Your task to perform on an android device: What's a good restaurant in New York? Image 0: 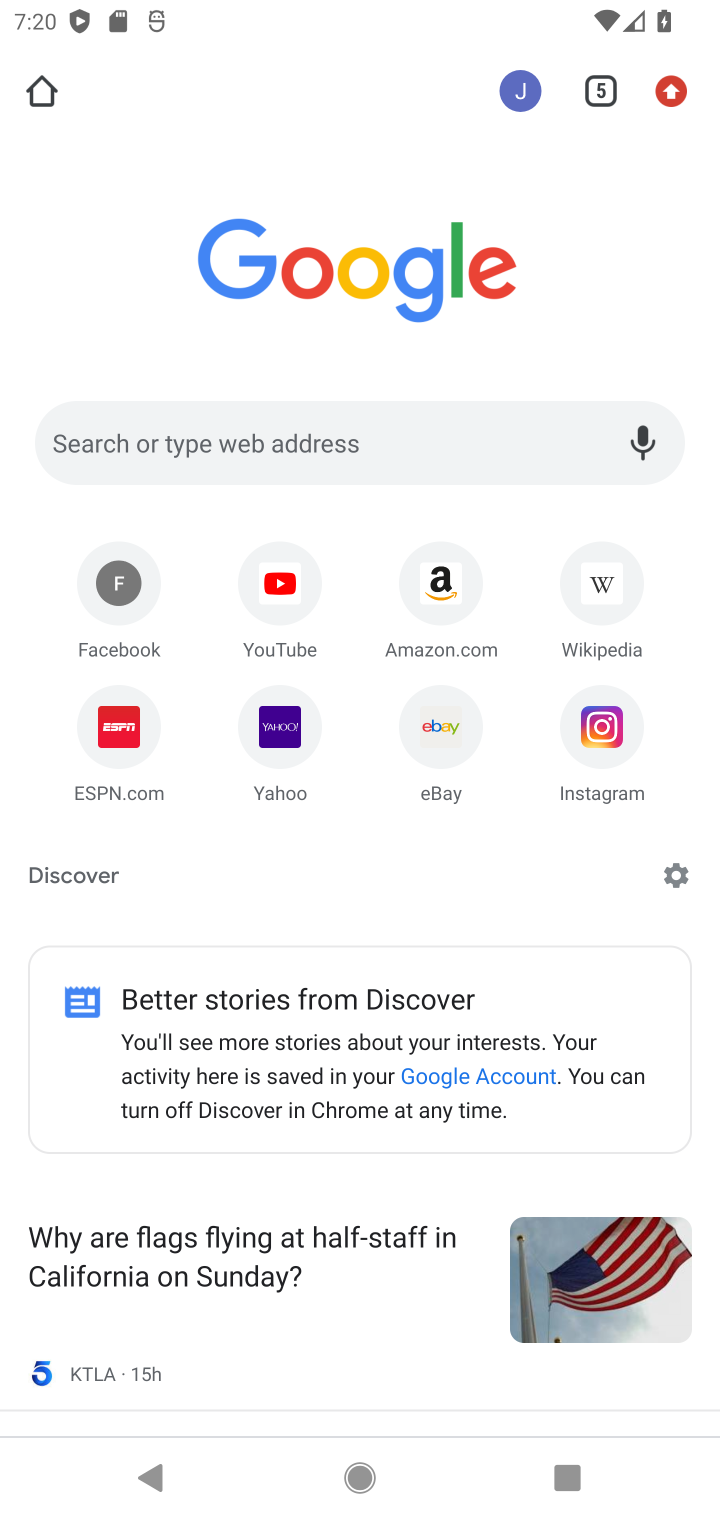
Step 0: click (155, 421)
Your task to perform on an android device: What's a good restaurant in New York? Image 1: 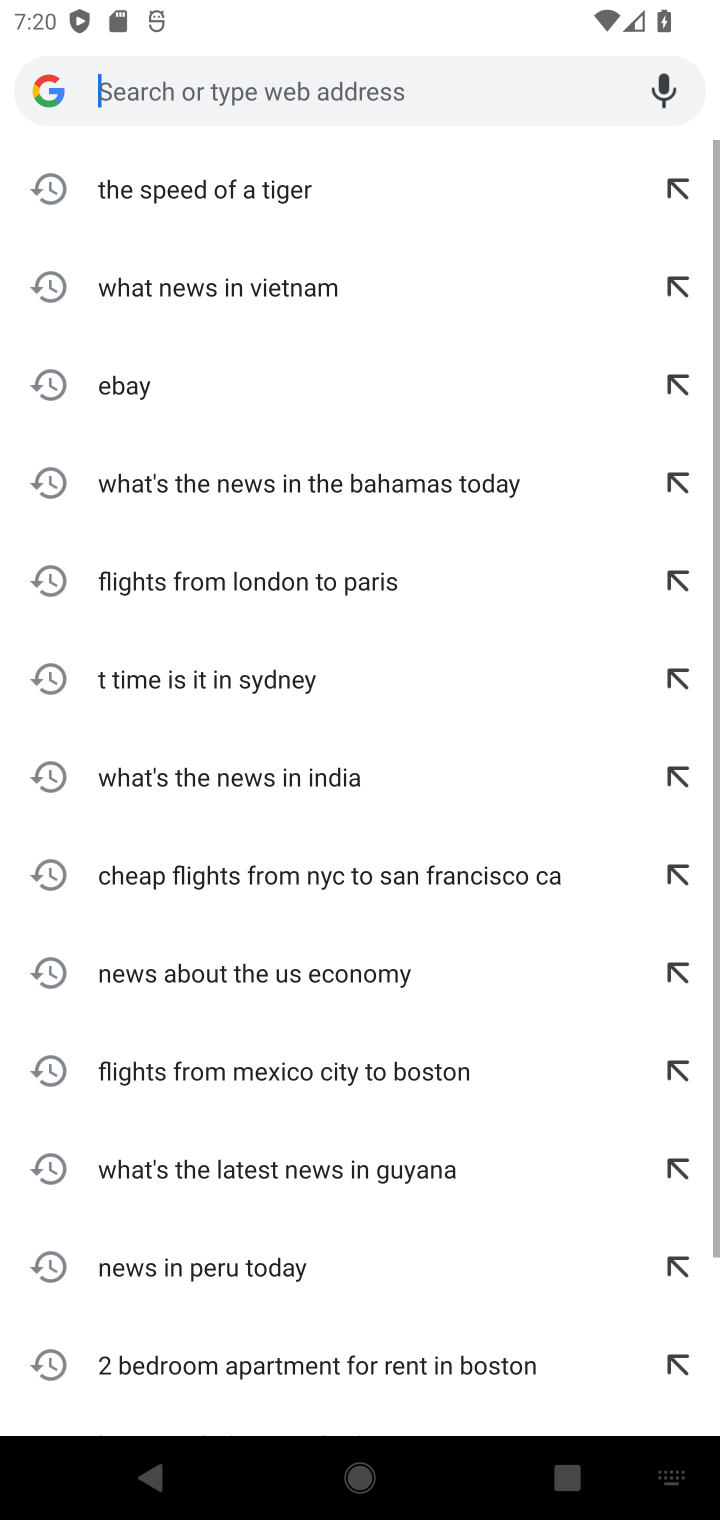
Step 1: type "What's a good restaurant in New York?"
Your task to perform on an android device: What's a good restaurant in New York? Image 2: 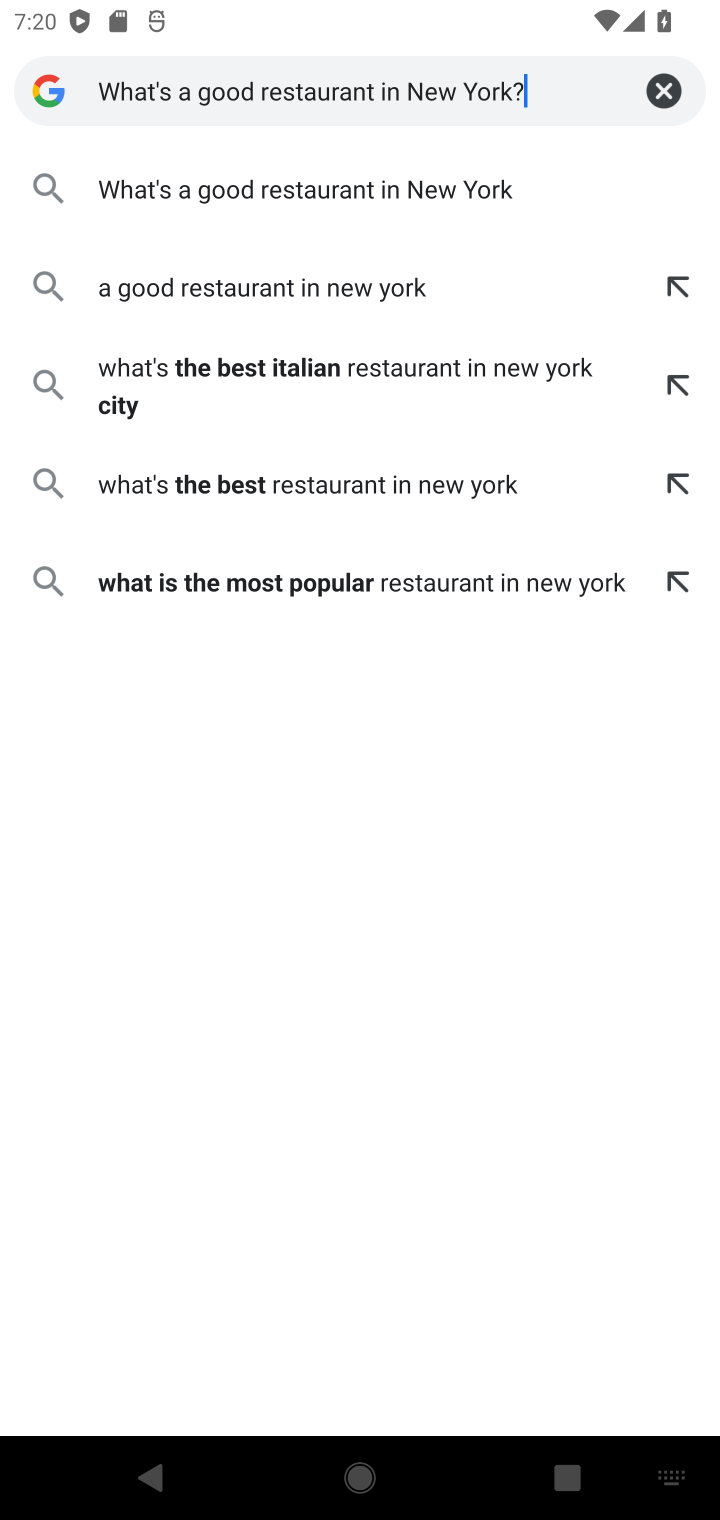
Step 2: click (437, 99)
Your task to perform on an android device: What's a good restaurant in New York? Image 3: 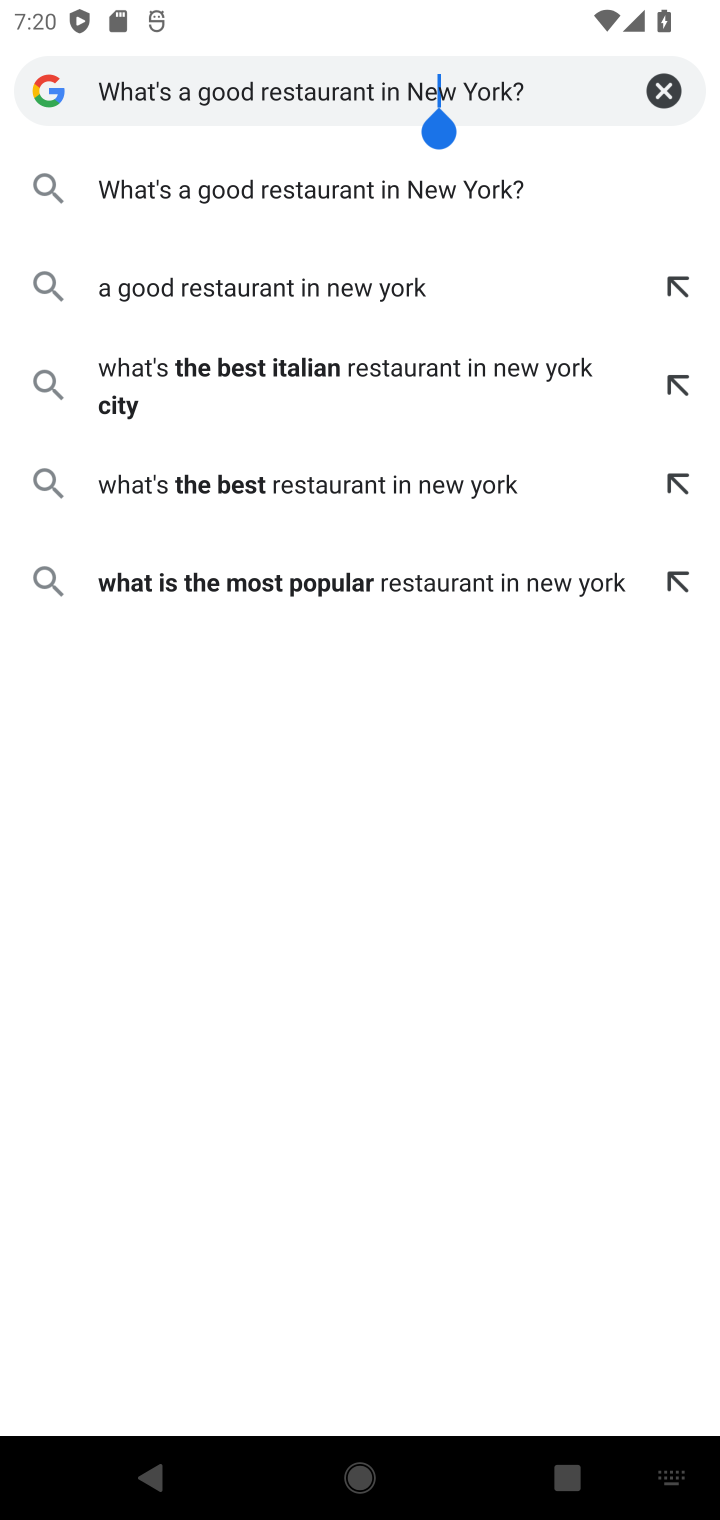
Step 3: click (273, 188)
Your task to perform on an android device: What's a good restaurant in New York? Image 4: 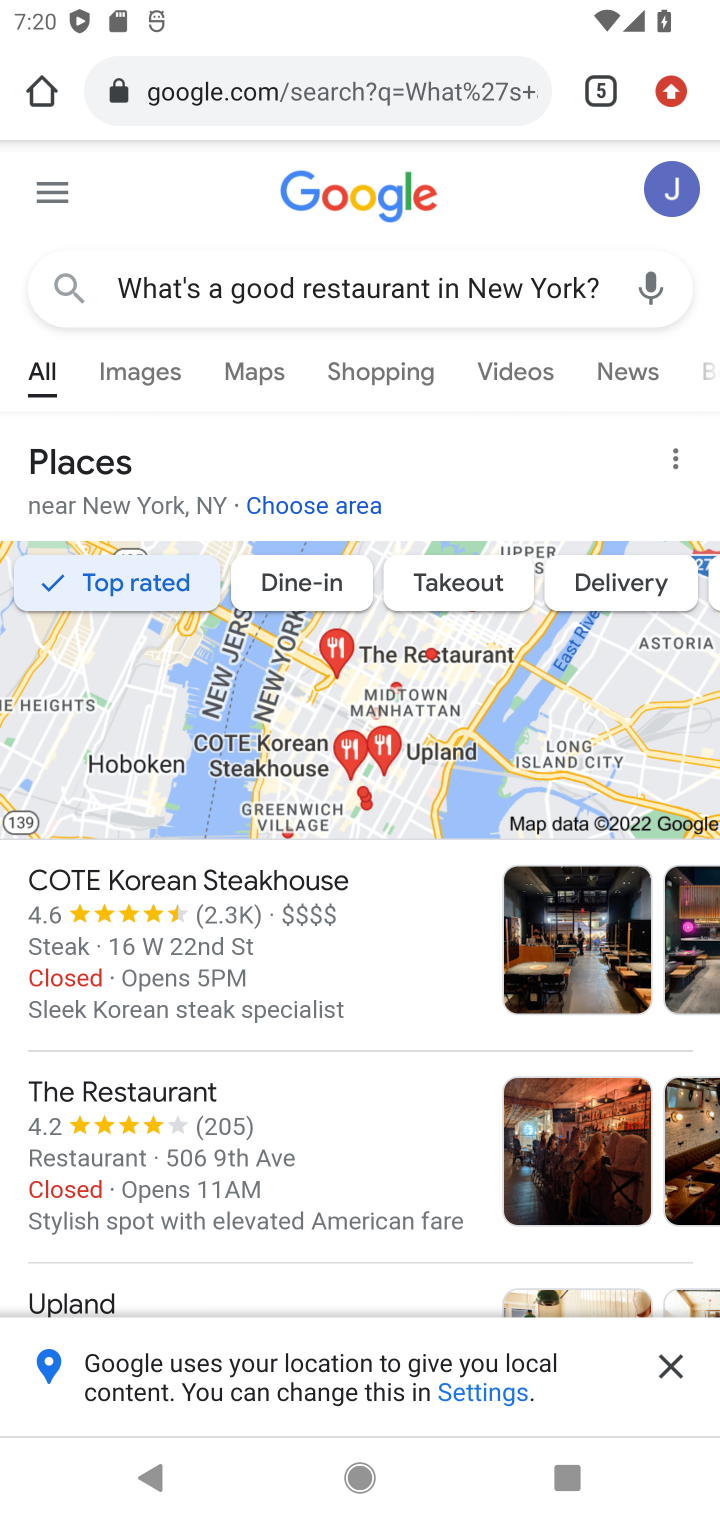
Step 4: task complete